Your task to perform on an android device: check data usage Image 0: 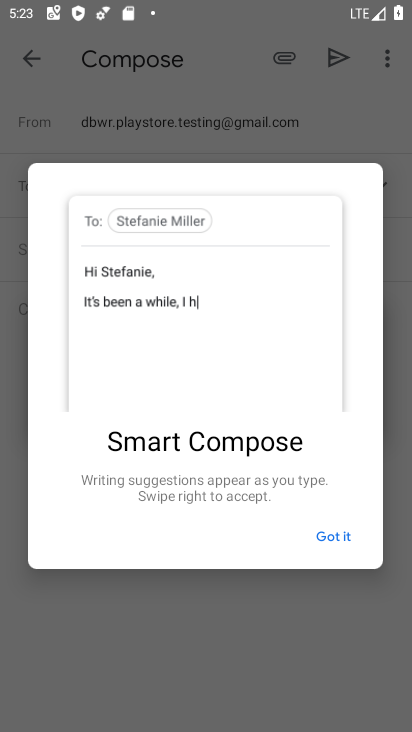
Step 0: press home button
Your task to perform on an android device: check data usage Image 1: 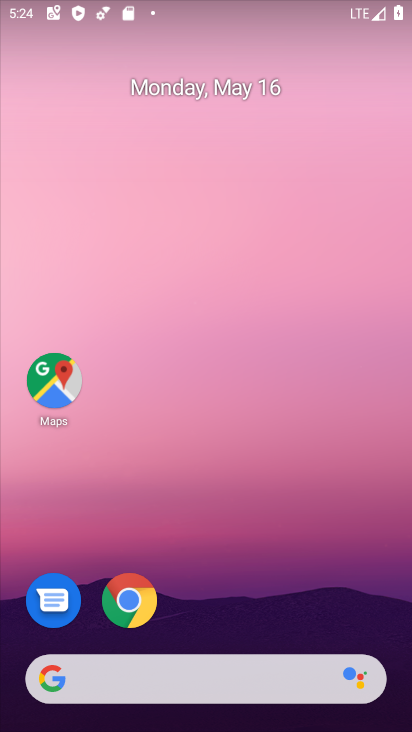
Step 1: drag from (209, 638) to (275, 32)
Your task to perform on an android device: check data usage Image 2: 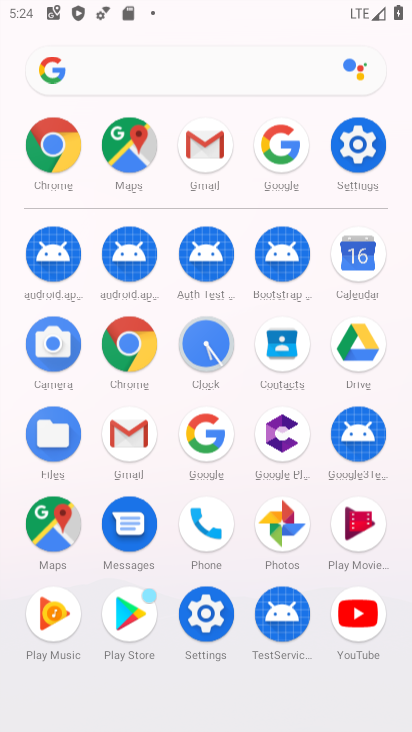
Step 2: click (352, 166)
Your task to perform on an android device: check data usage Image 3: 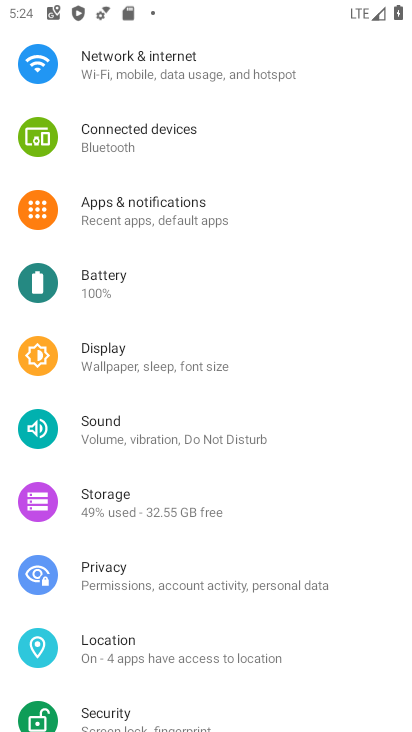
Step 3: click (159, 84)
Your task to perform on an android device: check data usage Image 4: 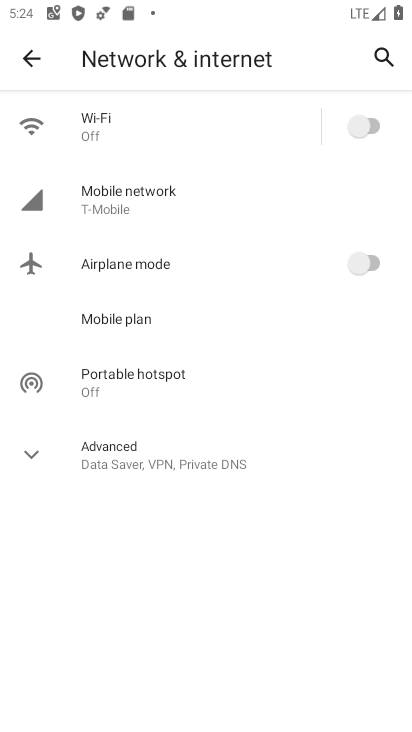
Step 4: click (134, 194)
Your task to perform on an android device: check data usage Image 5: 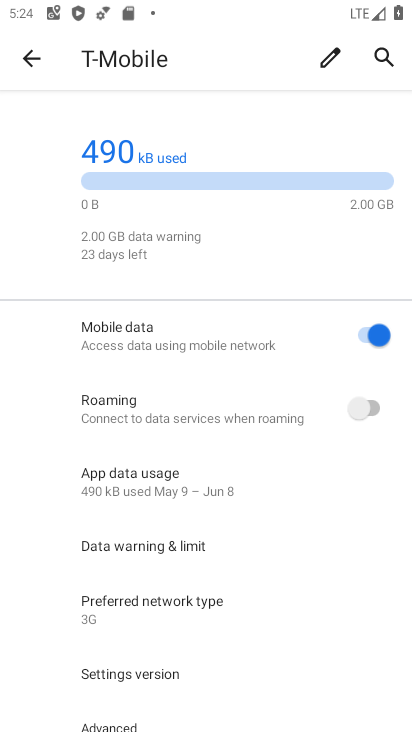
Step 5: task complete